Your task to perform on an android device: show emergency info Image 0: 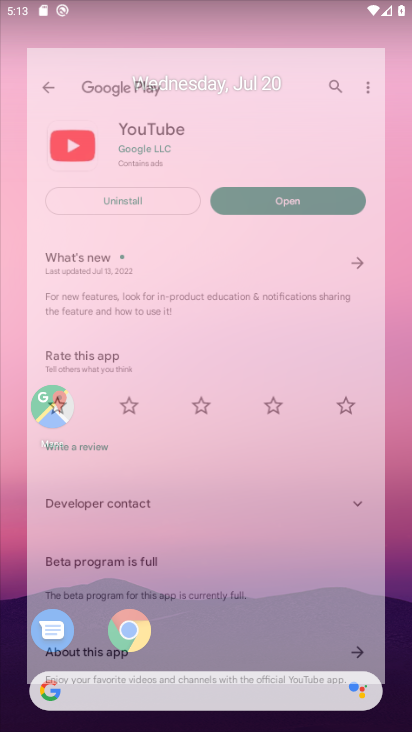
Step 0: press home button
Your task to perform on an android device: show emergency info Image 1: 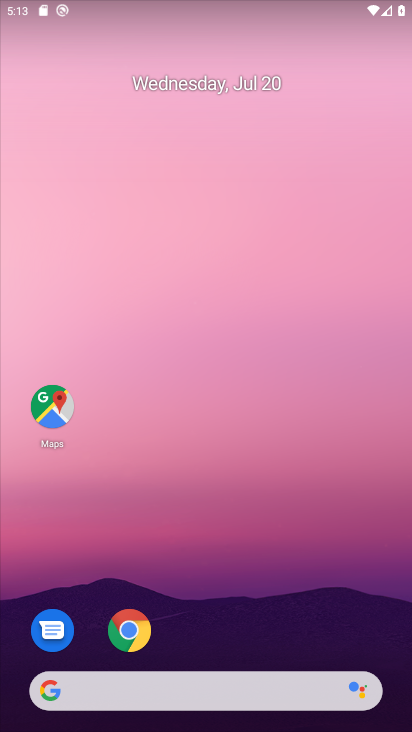
Step 1: drag from (277, 602) to (270, 109)
Your task to perform on an android device: show emergency info Image 2: 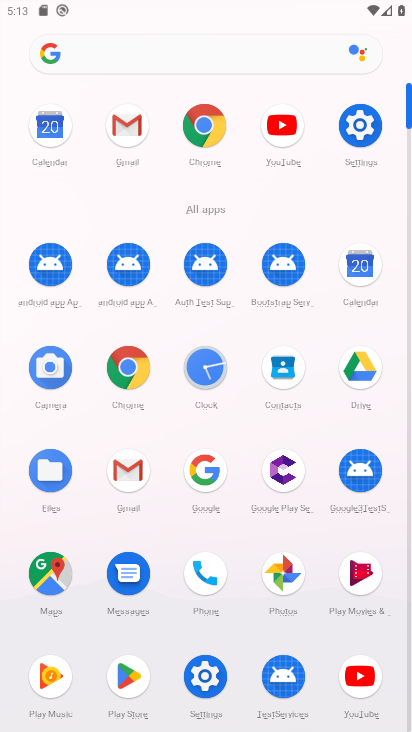
Step 2: click (353, 139)
Your task to perform on an android device: show emergency info Image 3: 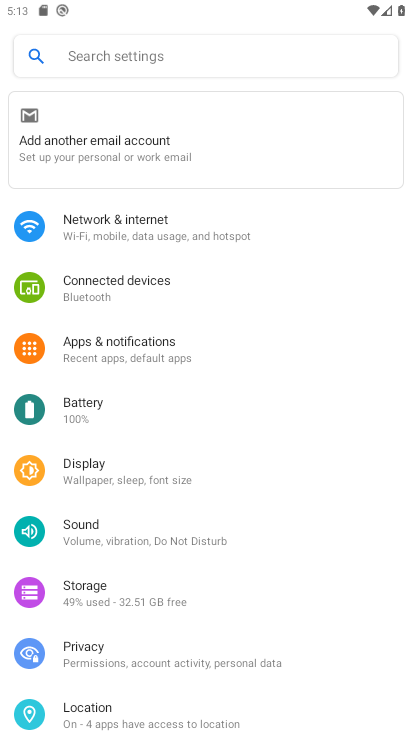
Step 3: drag from (261, 642) to (257, 248)
Your task to perform on an android device: show emergency info Image 4: 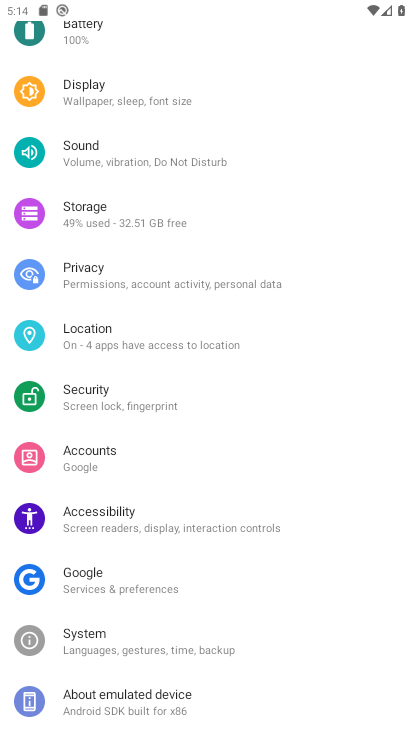
Step 4: click (89, 703)
Your task to perform on an android device: show emergency info Image 5: 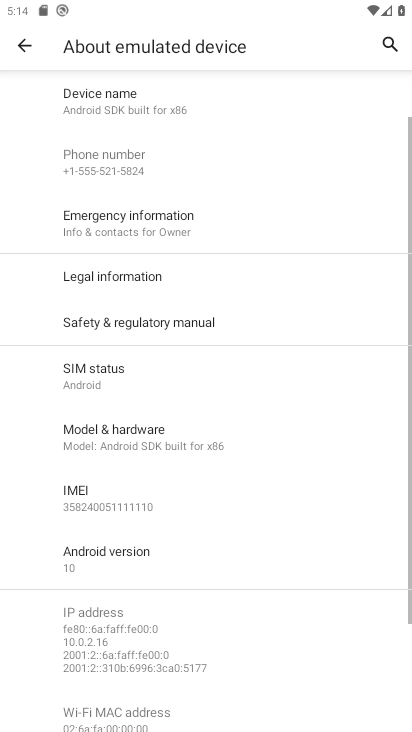
Step 5: click (124, 210)
Your task to perform on an android device: show emergency info Image 6: 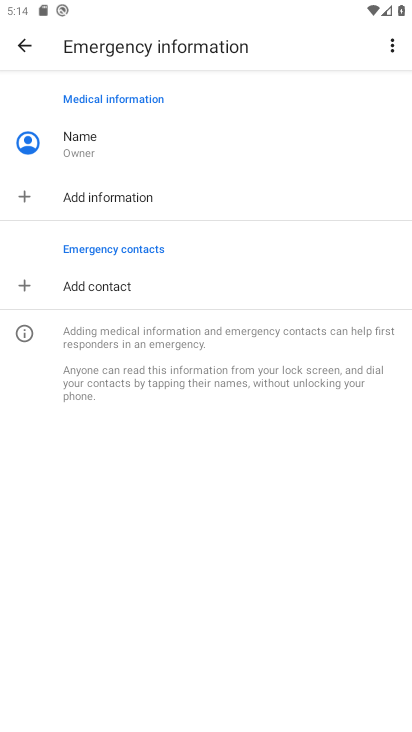
Step 6: task complete